Your task to perform on an android device: see sites visited before in the chrome app Image 0: 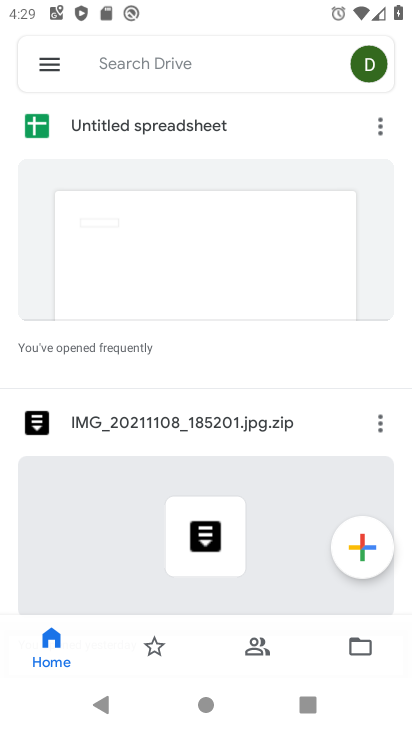
Step 0: press back button
Your task to perform on an android device: see sites visited before in the chrome app Image 1: 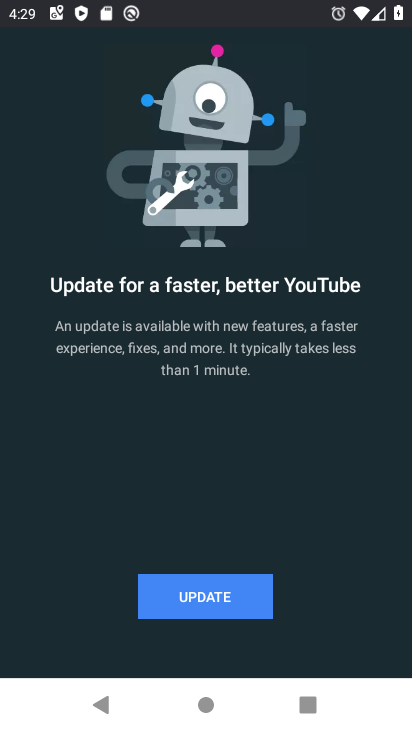
Step 1: press home button
Your task to perform on an android device: see sites visited before in the chrome app Image 2: 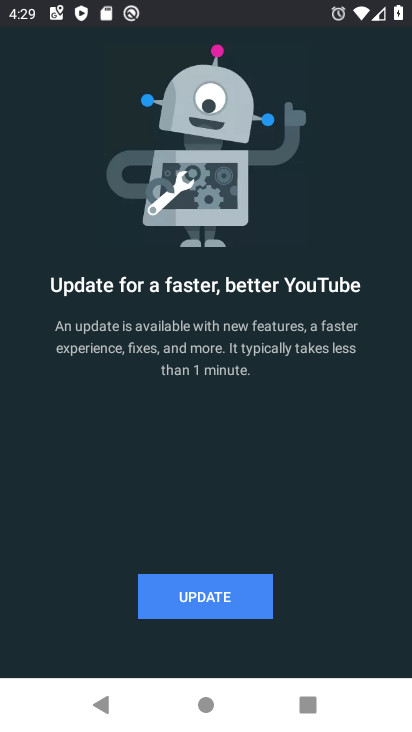
Step 2: press home button
Your task to perform on an android device: see sites visited before in the chrome app Image 3: 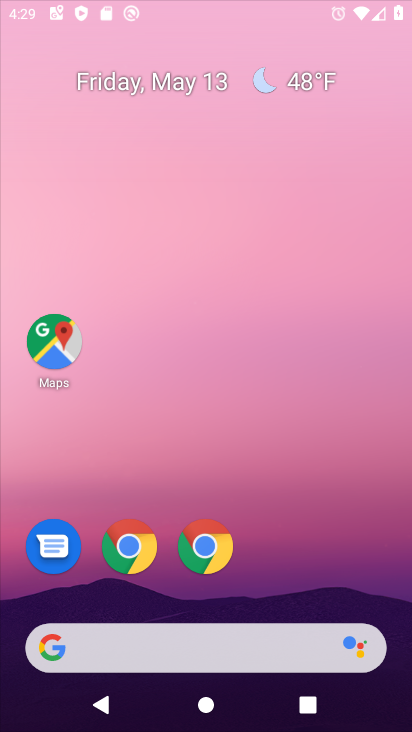
Step 3: press home button
Your task to perform on an android device: see sites visited before in the chrome app Image 4: 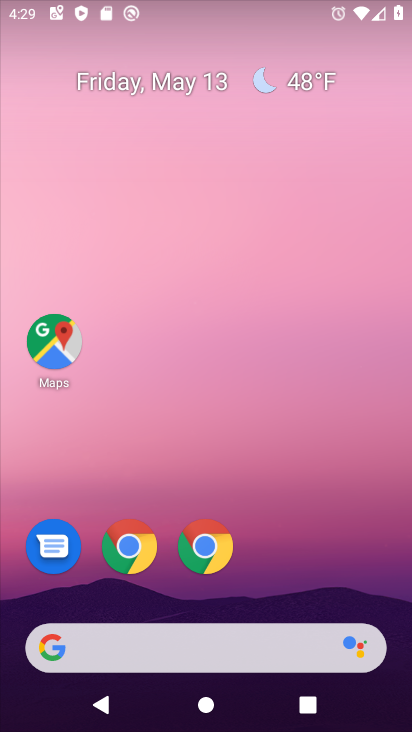
Step 4: press home button
Your task to perform on an android device: see sites visited before in the chrome app Image 5: 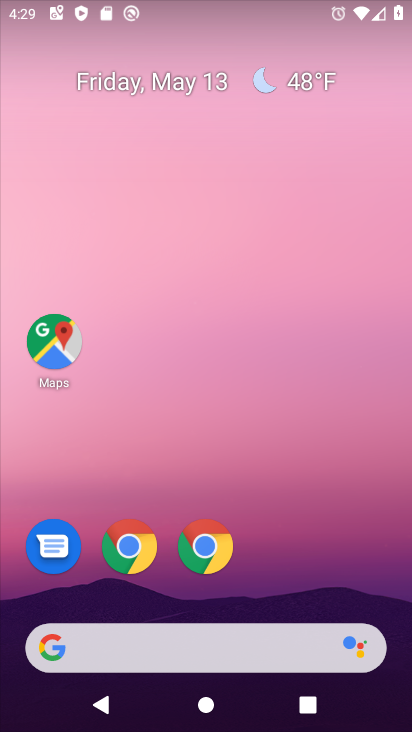
Step 5: drag from (330, 664) to (121, 3)
Your task to perform on an android device: see sites visited before in the chrome app Image 6: 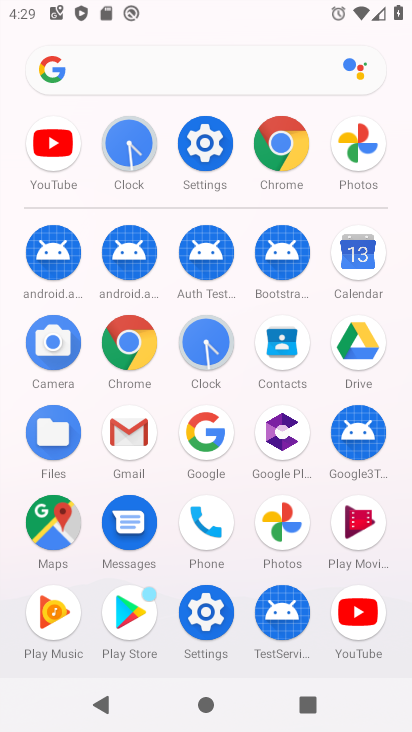
Step 6: click (275, 151)
Your task to perform on an android device: see sites visited before in the chrome app Image 7: 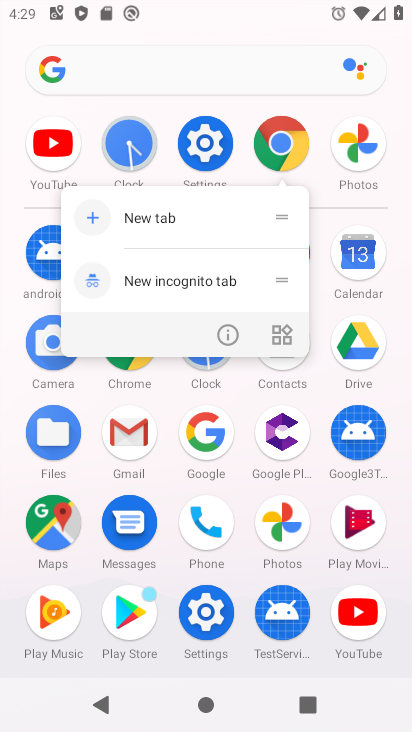
Step 7: click (273, 138)
Your task to perform on an android device: see sites visited before in the chrome app Image 8: 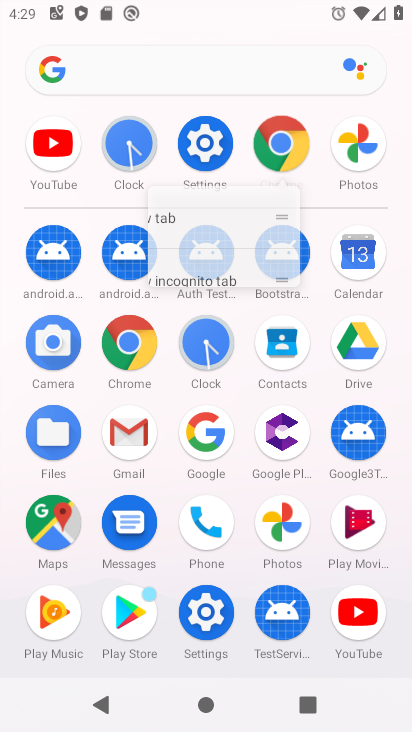
Step 8: click (278, 131)
Your task to perform on an android device: see sites visited before in the chrome app Image 9: 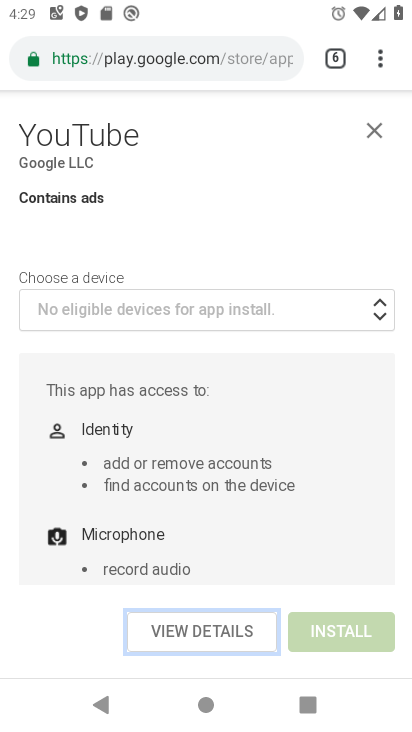
Step 9: press back button
Your task to perform on an android device: see sites visited before in the chrome app Image 10: 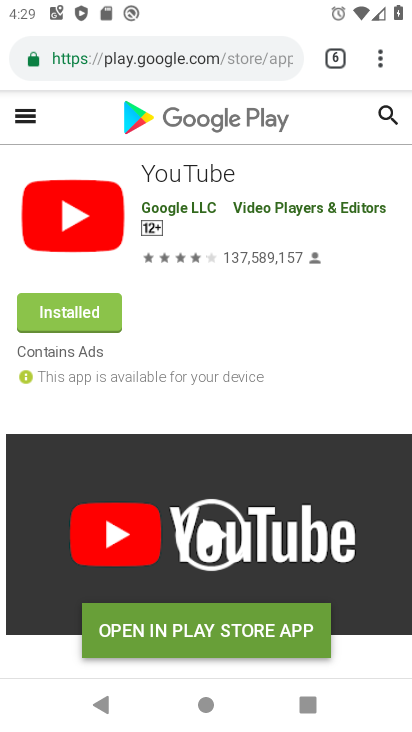
Step 10: drag from (375, 62) to (164, 590)
Your task to perform on an android device: see sites visited before in the chrome app Image 11: 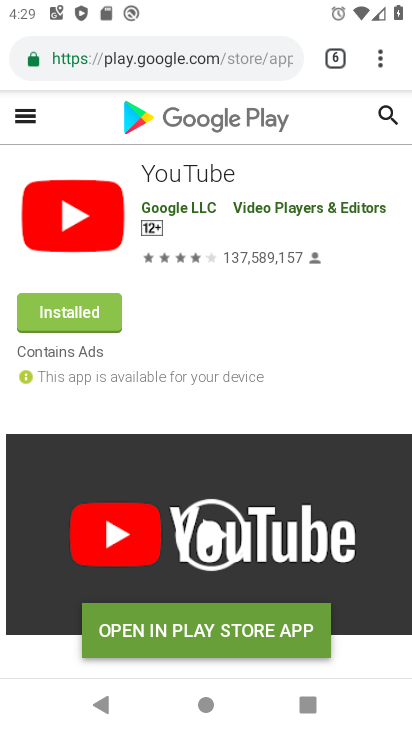
Step 11: click (163, 591)
Your task to perform on an android device: see sites visited before in the chrome app Image 12: 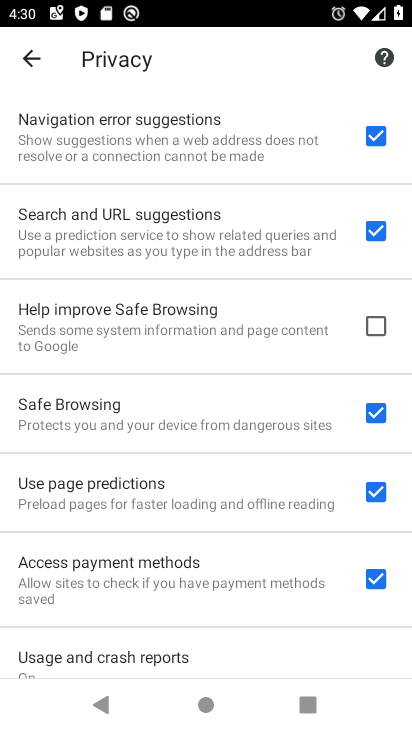
Step 12: click (23, 60)
Your task to perform on an android device: see sites visited before in the chrome app Image 13: 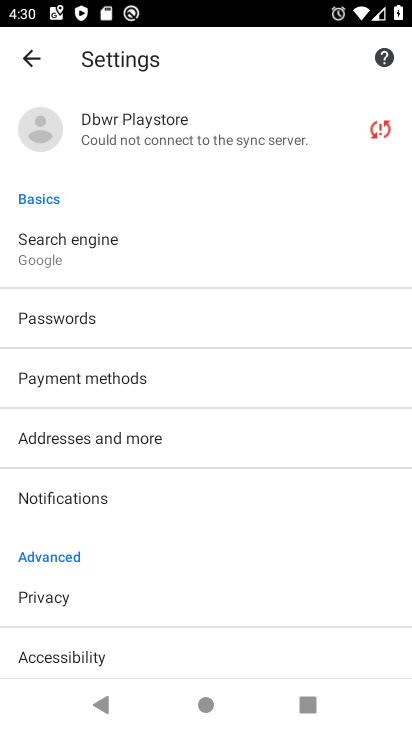
Step 13: drag from (82, 492) to (92, 119)
Your task to perform on an android device: see sites visited before in the chrome app Image 14: 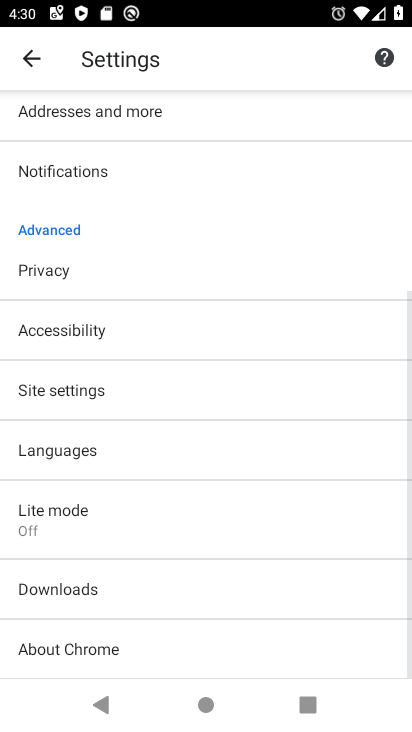
Step 14: click (31, 68)
Your task to perform on an android device: see sites visited before in the chrome app Image 15: 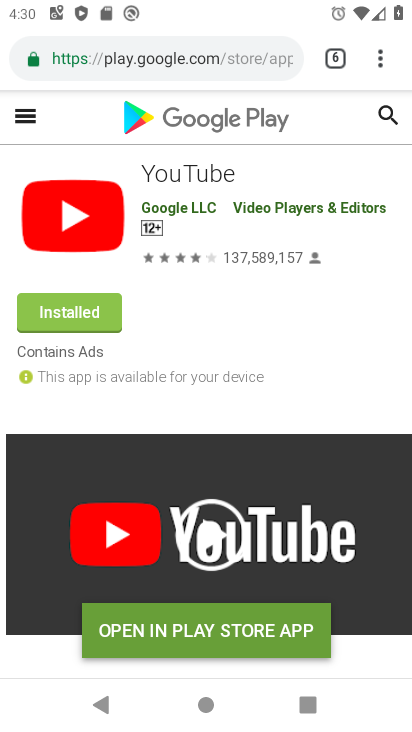
Step 15: click (384, 55)
Your task to perform on an android device: see sites visited before in the chrome app Image 16: 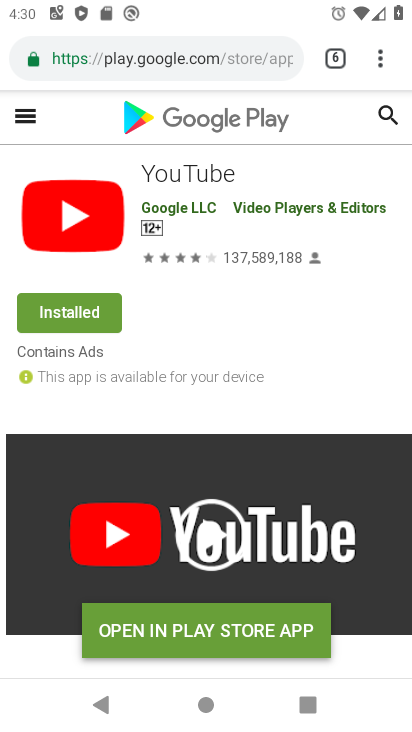
Step 16: task complete